Your task to perform on an android device: Show me productivity apps on the Play Store Image 0: 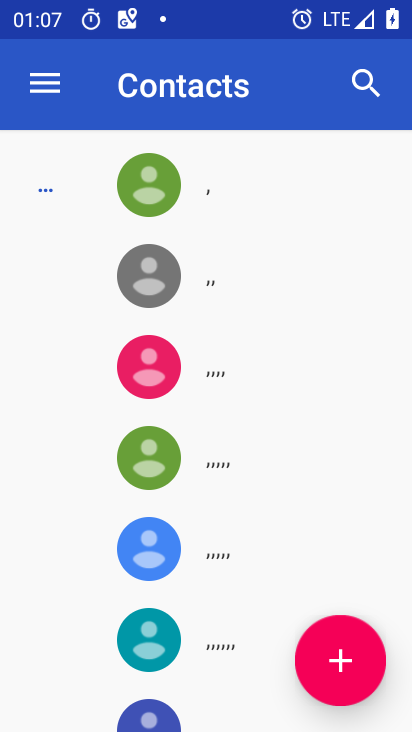
Step 0: press home button
Your task to perform on an android device: Show me productivity apps on the Play Store Image 1: 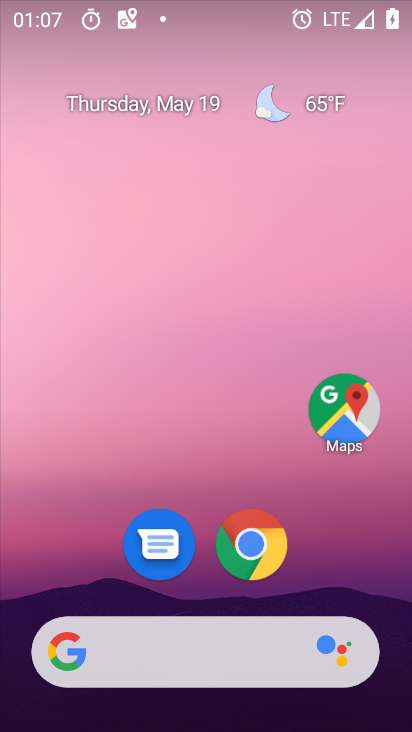
Step 1: drag from (379, 580) to (363, 212)
Your task to perform on an android device: Show me productivity apps on the Play Store Image 2: 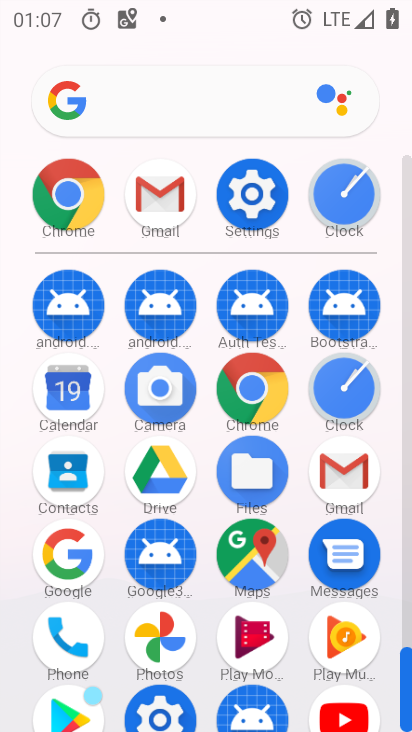
Step 2: drag from (302, 629) to (295, 353)
Your task to perform on an android device: Show me productivity apps on the Play Store Image 3: 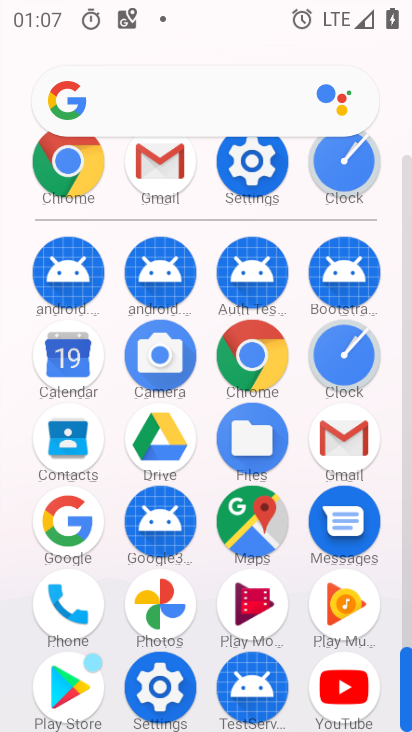
Step 3: click (46, 697)
Your task to perform on an android device: Show me productivity apps on the Play Store Image 4: 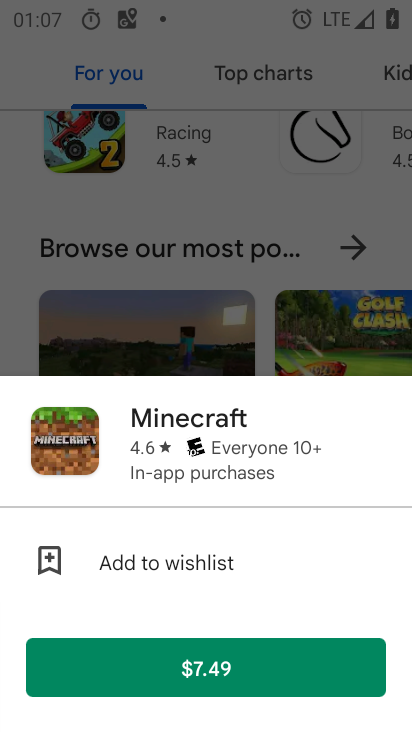
Step 4: click (27, 232)
Your task to perform on an android device: Show me productivity apps on the Play Store Image 5: 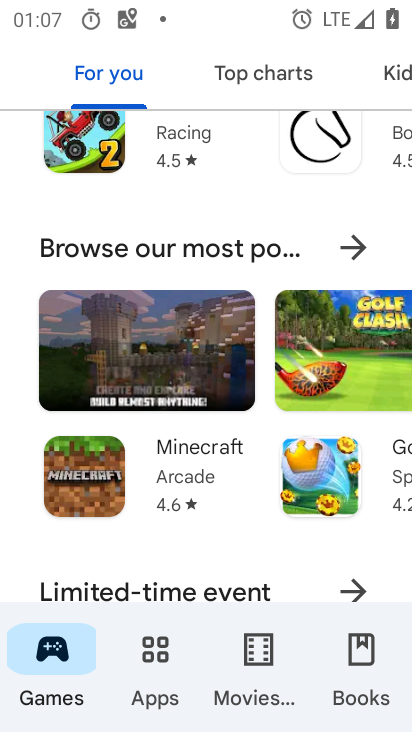
Step 5: click (156, 664)
Your task to perform on an android device: Show me productivity apps on the Play Store Image 6: 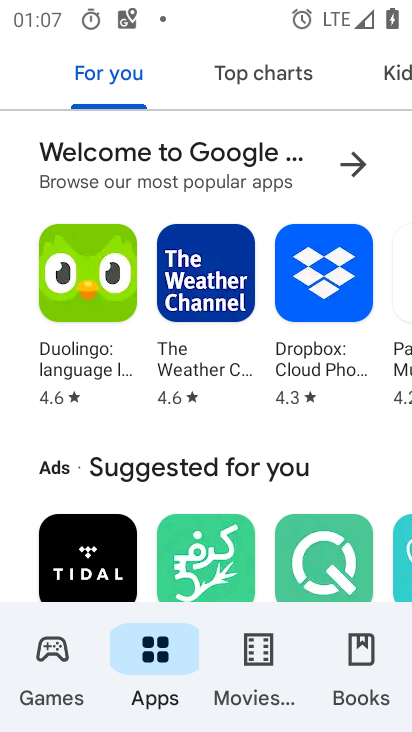
Step 6: task complete